Your task to perform on an android device: toggle show notifications on the lock screen Image 0: 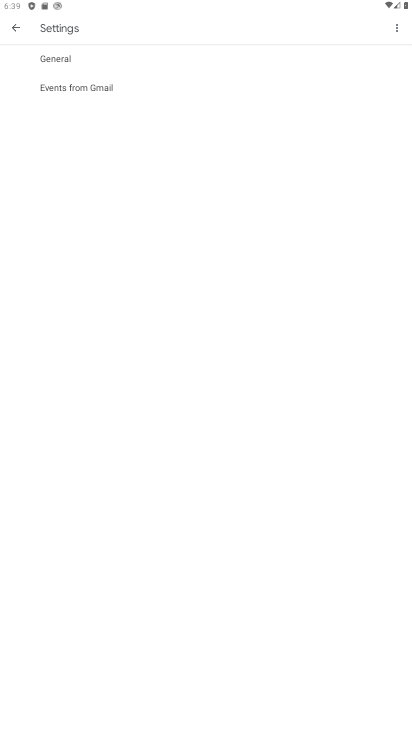
Step 0: drag from (300, 626) to (410, 155)
Your task to perform on an android device: toggle show notifications on the lock screen Image 1: 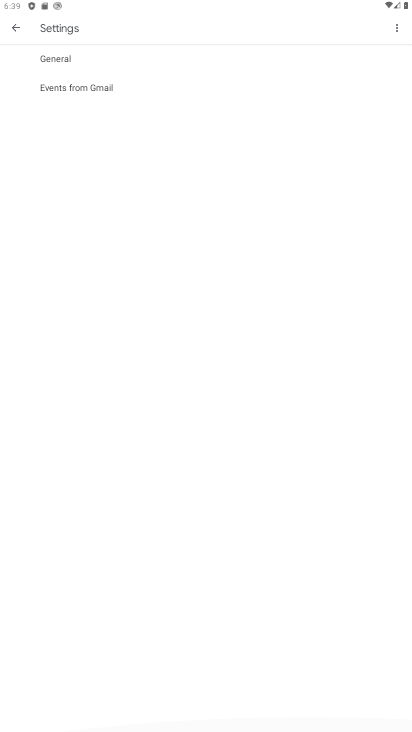
Step 1: press home button
Your task to perform on an android device: toggle show notifications on the lock screen Image 2: 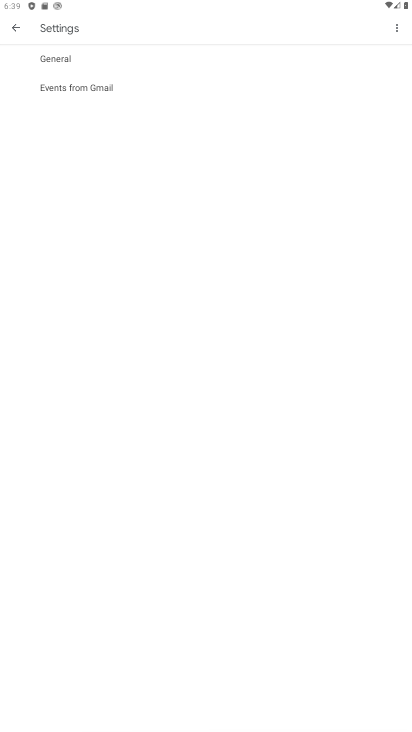
Step 2: drag from (410, 155) to (405, 380)
Your task to perform on an android device: toggle show notifications on the lock screen Image 3: 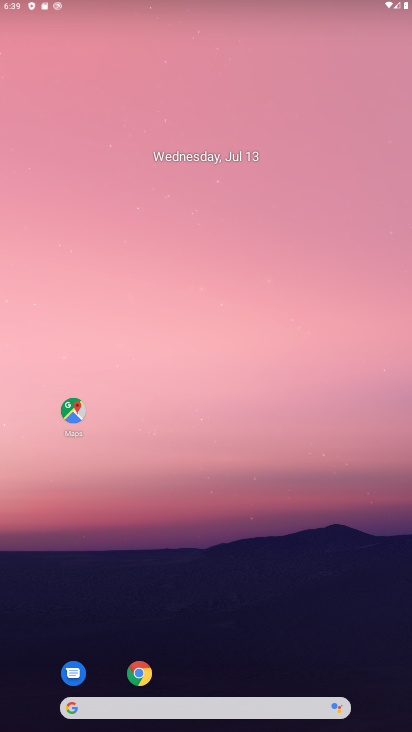
Step 3: drag from (316, 656) to (409, 144)
Your task to perform on an android device: toggle show notifications on the lock screen Image 4: 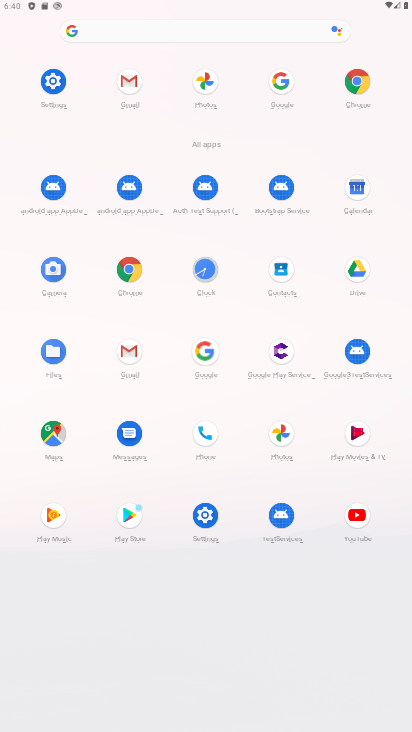
Step 4: click (58, 82)
Your task to perform on an android device: toggle show notifications on the lock screen Image 5: 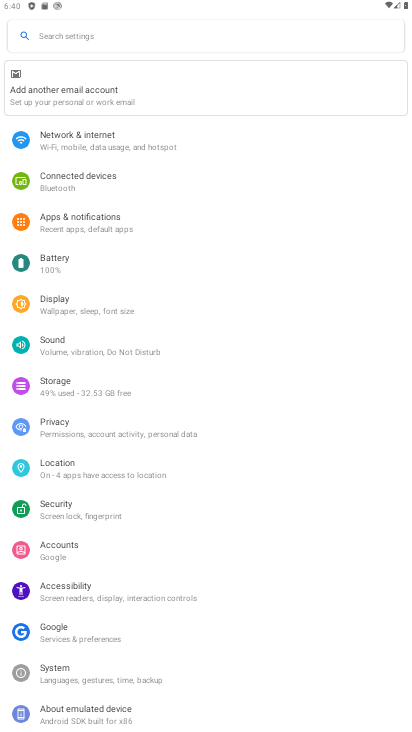
Step 5: click (115, 216)
Your task to perform on an android device: toggle show notifications on the lock screen Image 6: 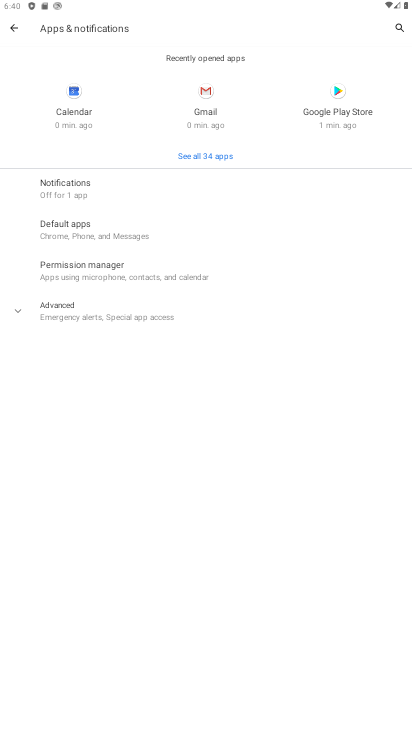
Step 6: click (58, 196)
Your task to perform on an android device: toggle show notifications on the lock screen Image 7: 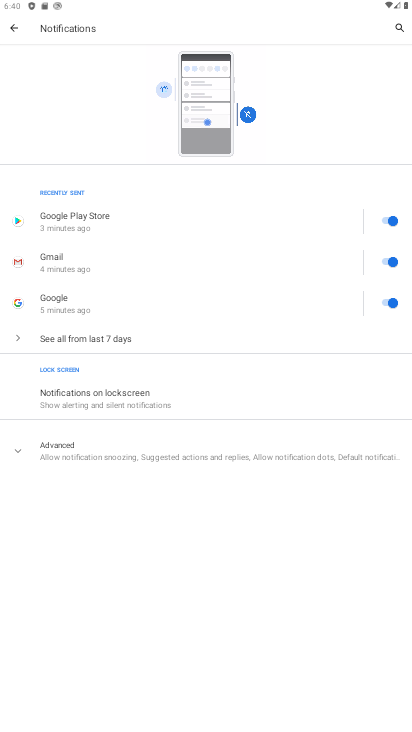
Step 7: click (60, 395)
Your task to perform on an android device: toggle show notifications on the lock screen Image 8: 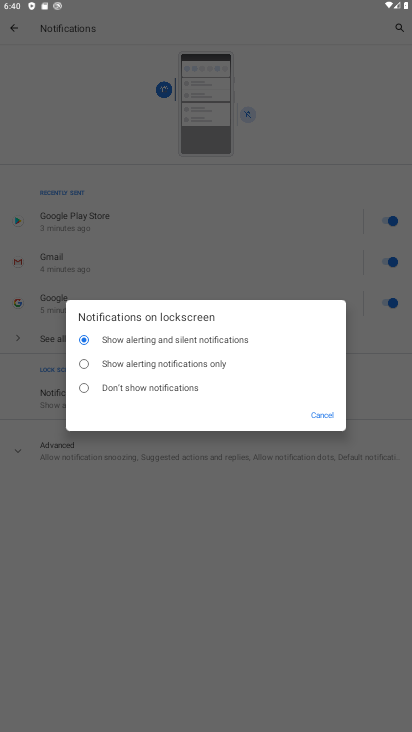
Step 8: click (84, 365)
Your task to perform on an android device: toggle show notifications on the lock screen Image 9: 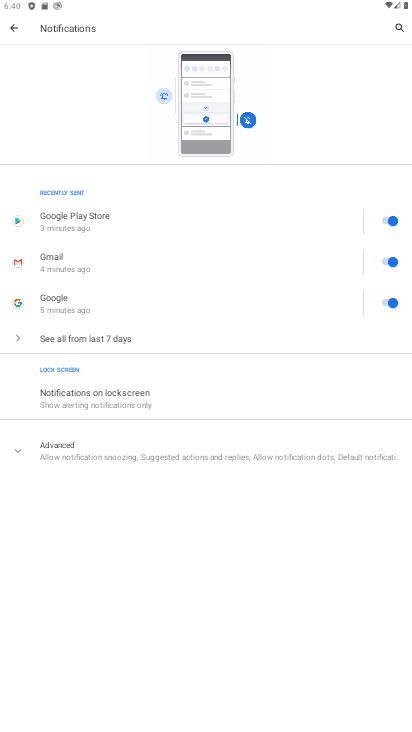
Step 9: task complete